Your task to perform on an android device: open chrome and create a bookmark for the current page Image 0: 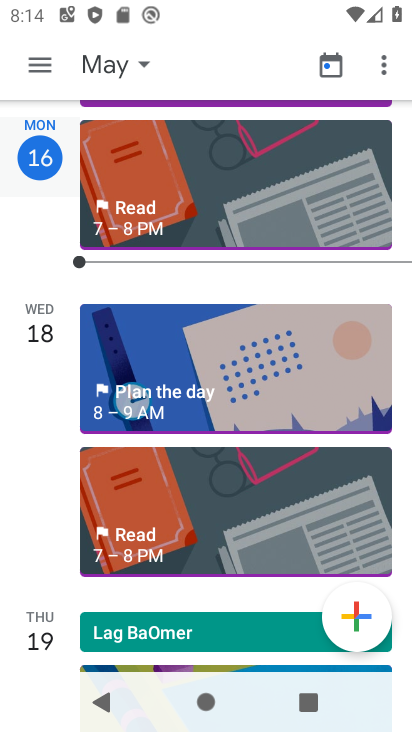
Step 0: press home button
Your task to perform on an android device: open chrome and create a bookmark for the current page Image 1: 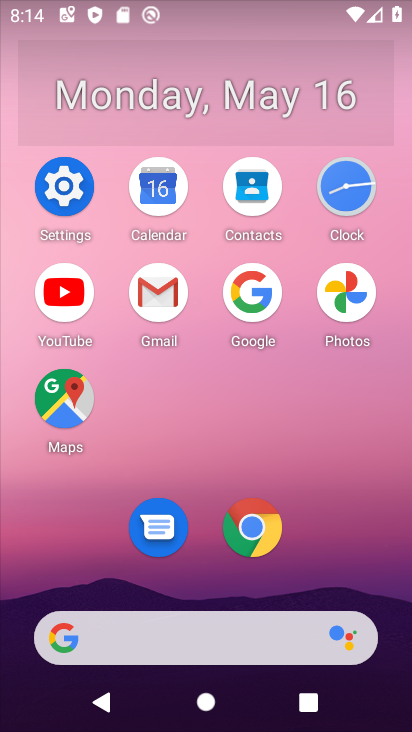
Step 1: click (274, 548)
Your task to perform on an android device: open chrome and create a bookmark for the current page Image 2: 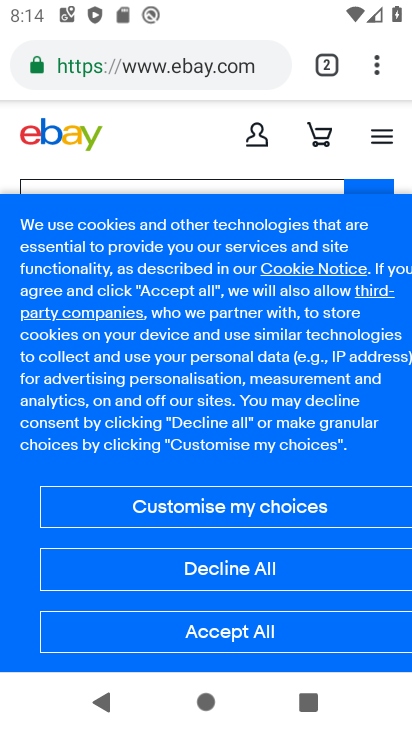
Step 2: click (380, 80)
Your task to perform on an android device: open chrome and create a bookmark for the current page Image 3: 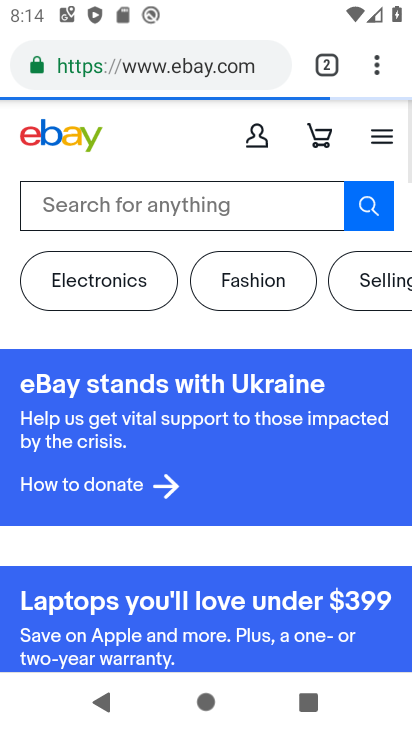
Step 3: click (370, 64)
Your task to perform on an android device: open chrome and create a bookmark for the current page Image 4: 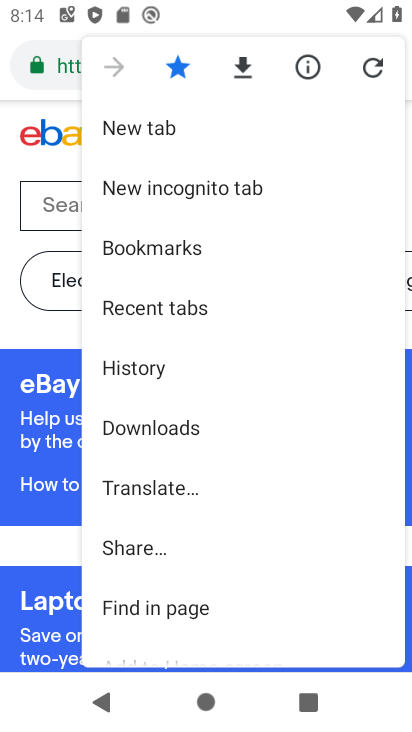
Step 4: click (123, 70)
Your task to perform on an android device: open chrome and create a bookmark for the current page Image 5: 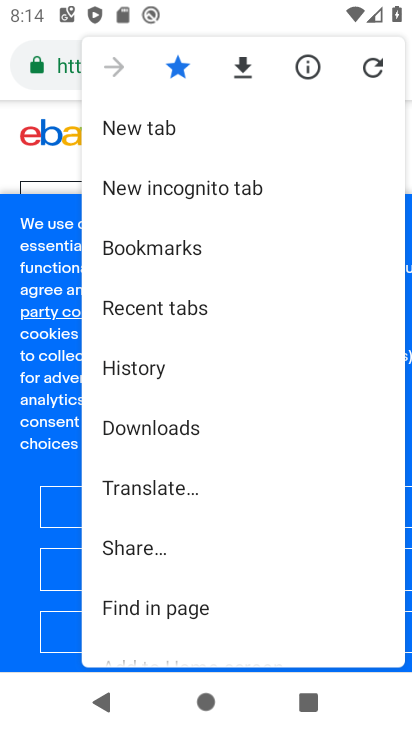
Step 5: click (53, 170)
Your task to perform on an android device: open chrome and create a bookmark for the current page Image 6: 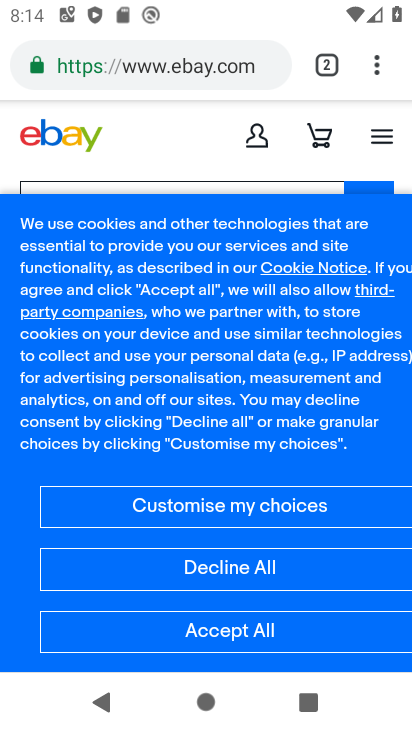
Step 6: click (327, 60)
Your task to perform on an android device: open chrome and create a bookmark for the current page Image 7: 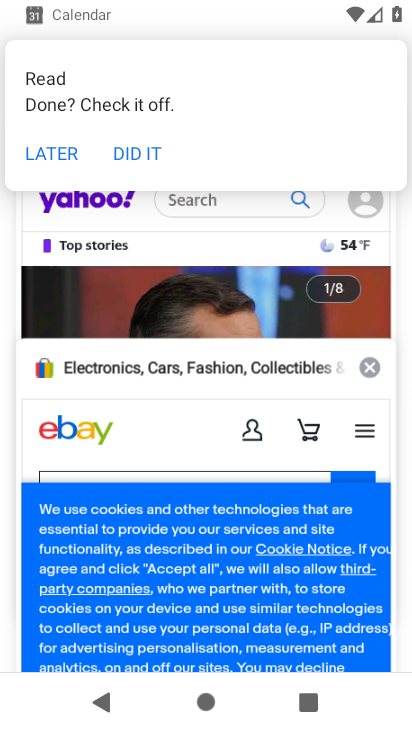
Step 7: task complete